Your task to perform on an android device: When is my next meeting? Image 0: 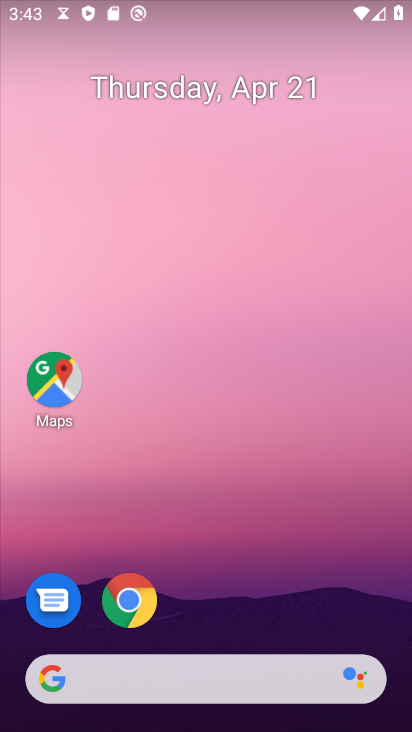
Step 0: drag from (237, 610) to (255, 18)
Your task to perform on an android device: When is my next meeting? Image 1: 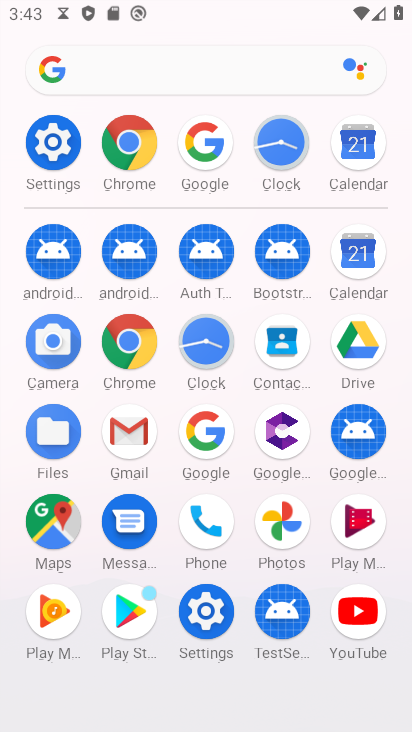
Step 1: click (359, 144)
Your task to perform on an android device: When is my next meeting? Image 2: 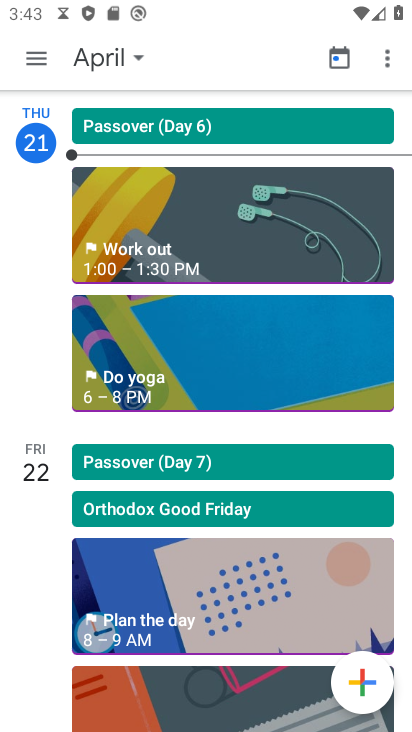
Step 2: click (142, 59)
Your task to perform on an android device: When is my next meeting? Image 3: 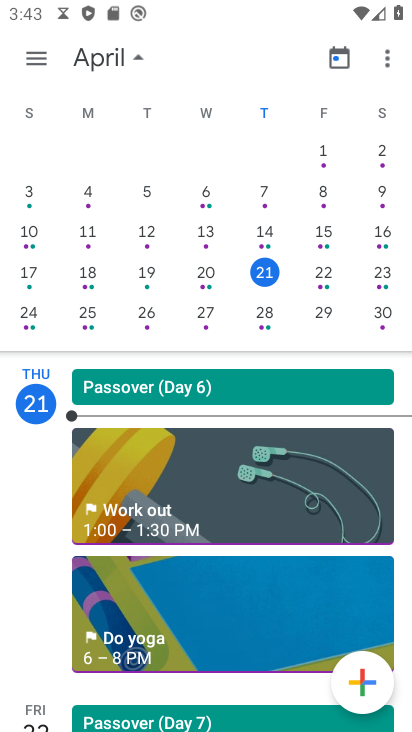
Step 3: click (89, 310)
Your task to perform on an android device: When is my next meeting? Image 4: 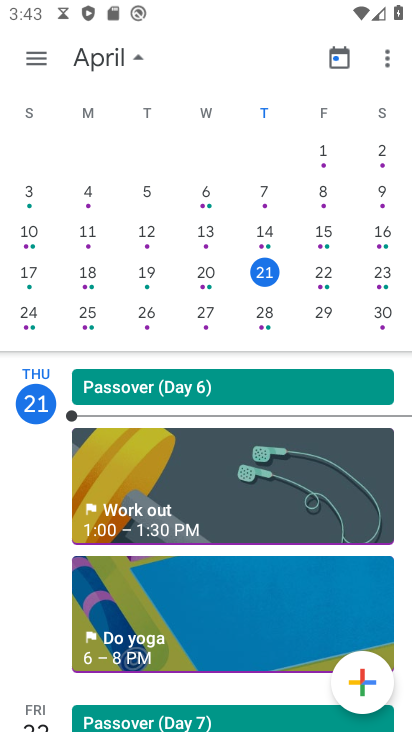
Step 4: click (89, 310)
Your task to perform on an android device: When is my next meeting? Image 5: 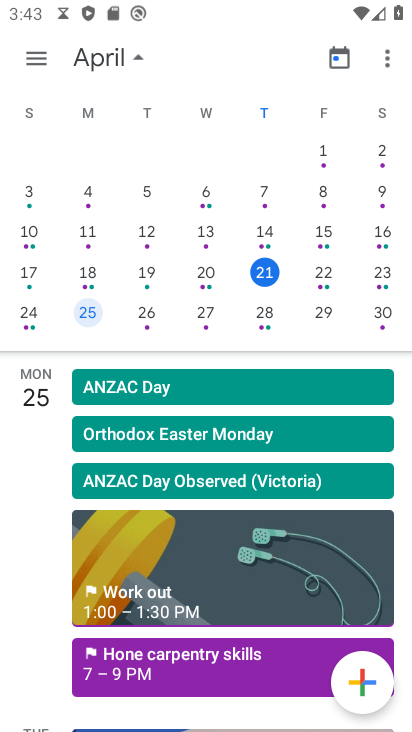
Step 5: task complete